Your task to perform on an android device: turn on location history Image 0: 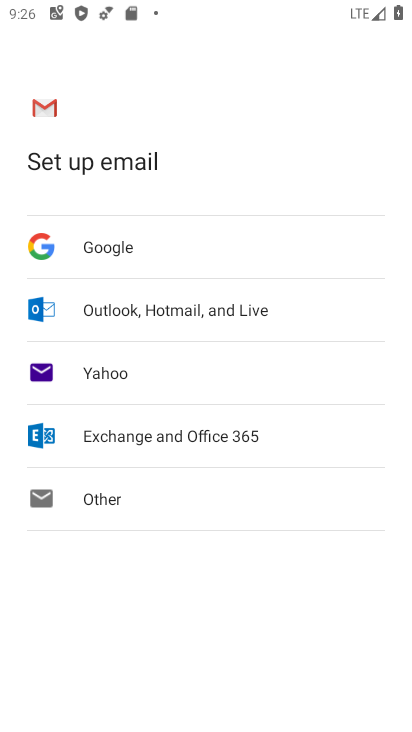
Step 0: press home button
Your task to perform on an android device: turn on location history Image 1: 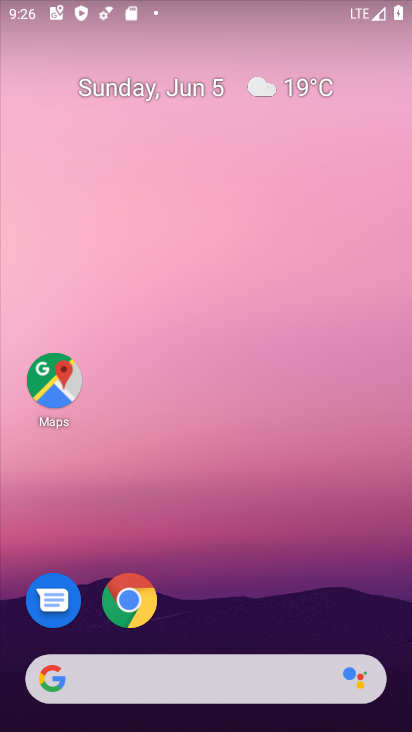
Step 1: drag from (215, 609) to (135, 185)
Your task to perform on an android device: turn on location history Image 2: 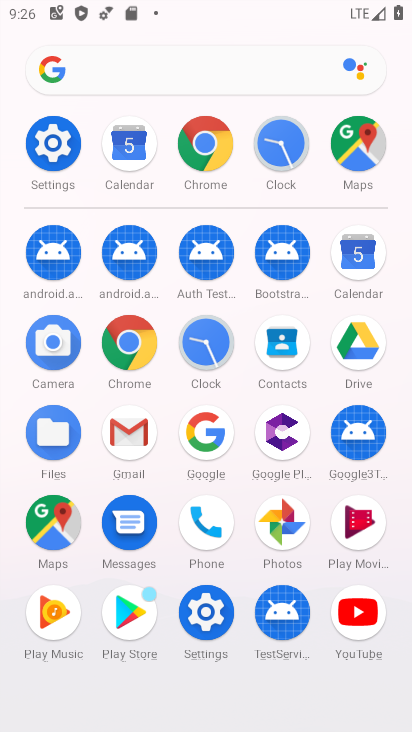
Step 2: click (362, 129)
Your task to perform on an android device: turn on location history Image 3: 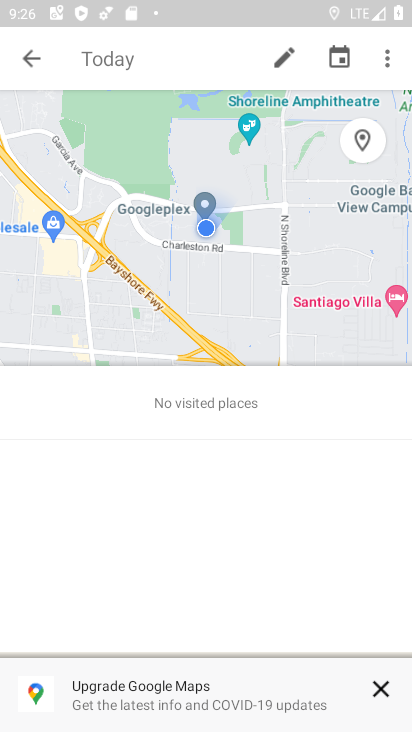
Step 3: click (388, 59)
Your task to perform on an android device: turn on location history Image 4: 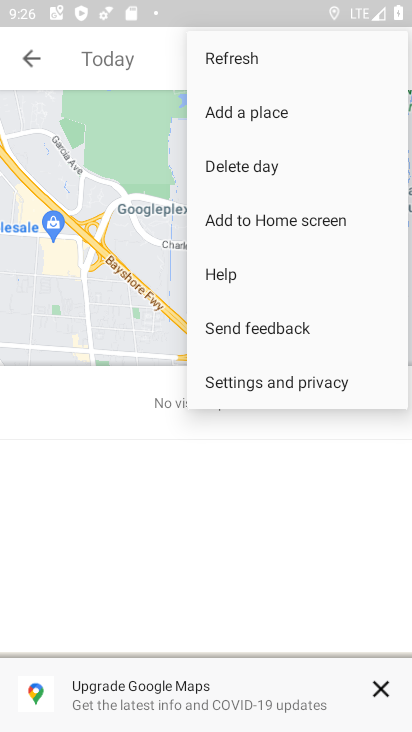
Step 4: click (274, 383)
Your task to perform on an android device: turn on location history Image 5: 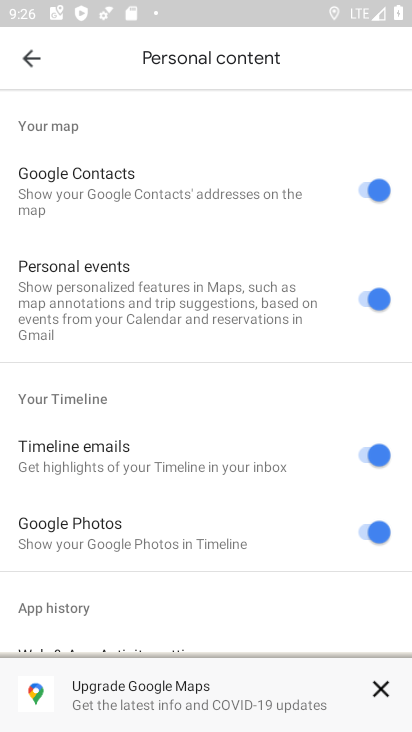
Step 5: task complete